Your task to perform on an android device: Search for pizza restaurants on Maps Image 0: 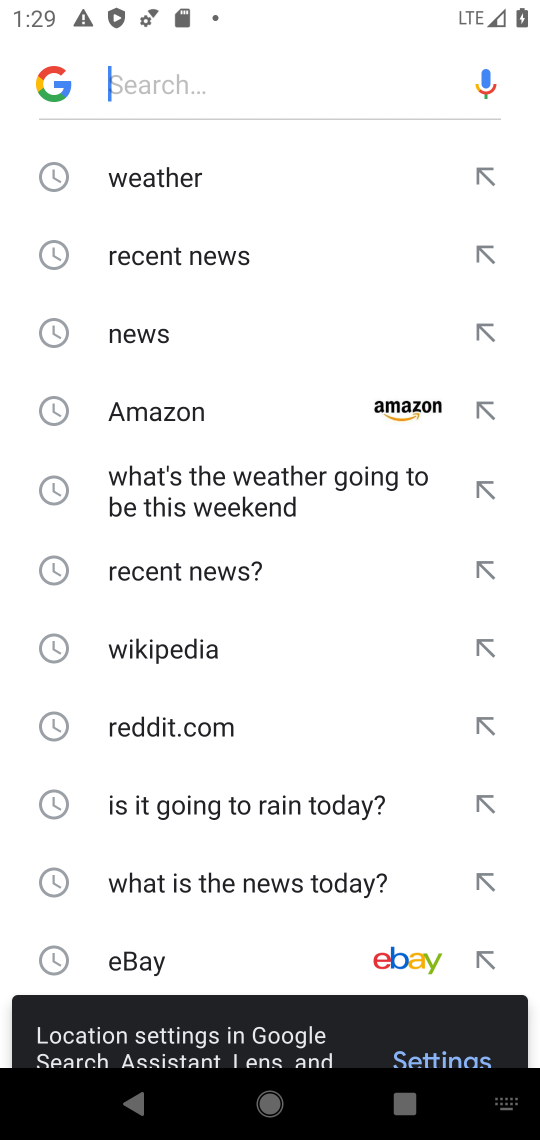
Step 0: press home button
Your task to perform on an android device: Search for pizza restaurants on Maps Image 1: 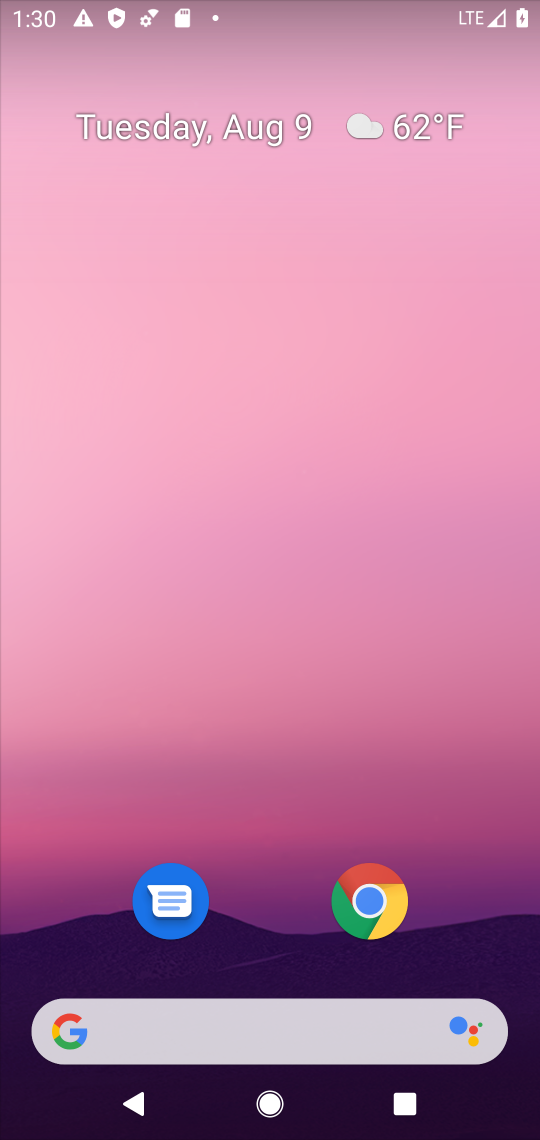
Step 1: drag from (477, 802) to (439, 250)
Your task to perform on an android device: Search for pizza restaurants on Maps Image 2: 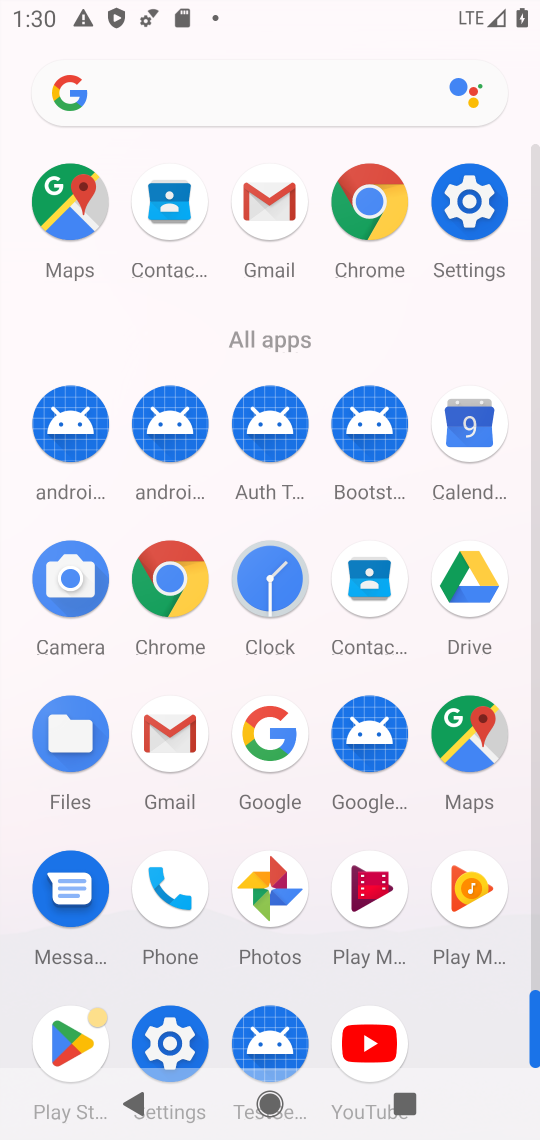
Step 2: click (472, 733)
Your task to perform on an android device: Search for pizza restaurants on Maps Image 3: 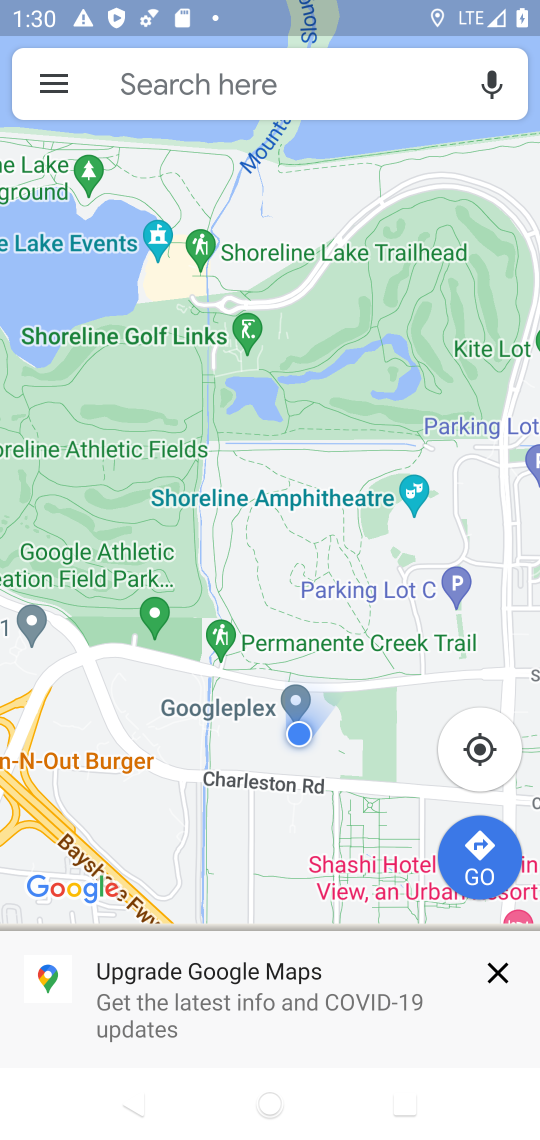
Step 3: click (203, 88)
Your task to perform on an android device: Search for pizza restaurants on Maps Image 4: 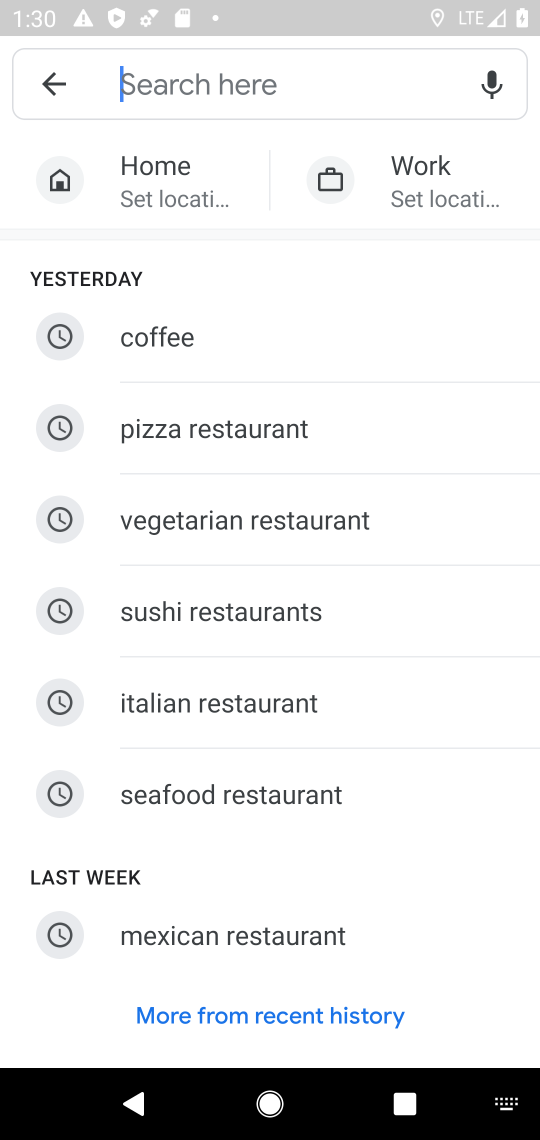
Step 4: type "pizza restaurants"
Your task to perform on an android device: Search for pizza restaurants on Maps Image 5: 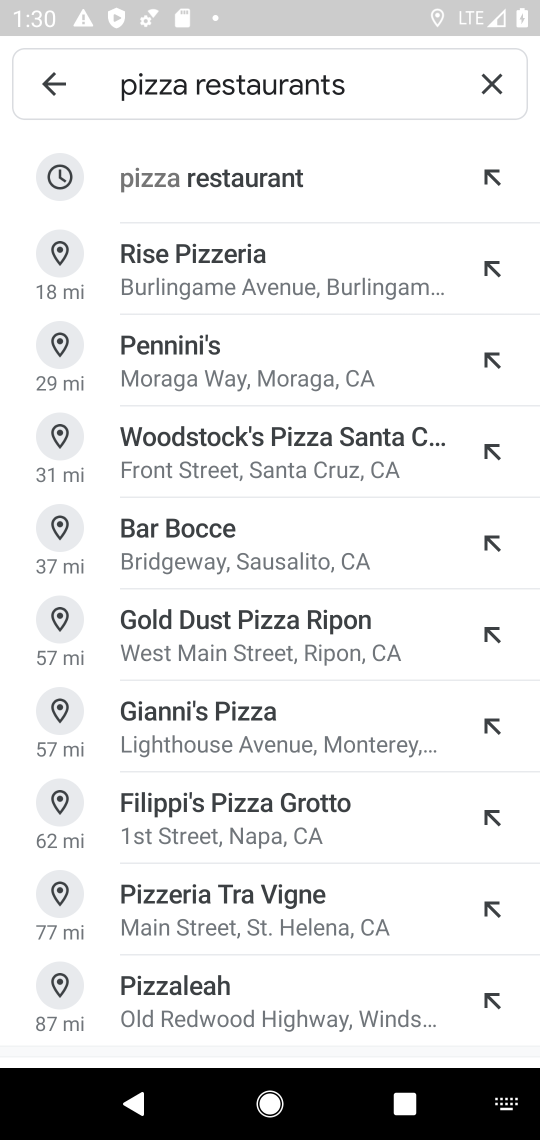
Step 5: click (183, 173)
Your task to perform on an android device: Search for pizza restaurants on Maps Image 6: 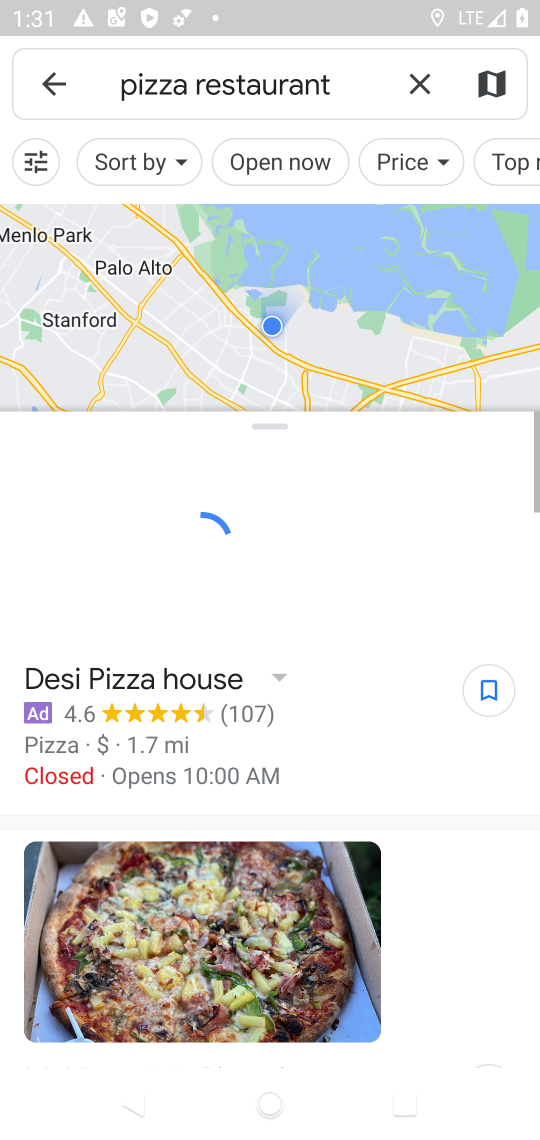
Step 6: task complete